Your task to perform on an android device: Open Yahoo.com Image 0: 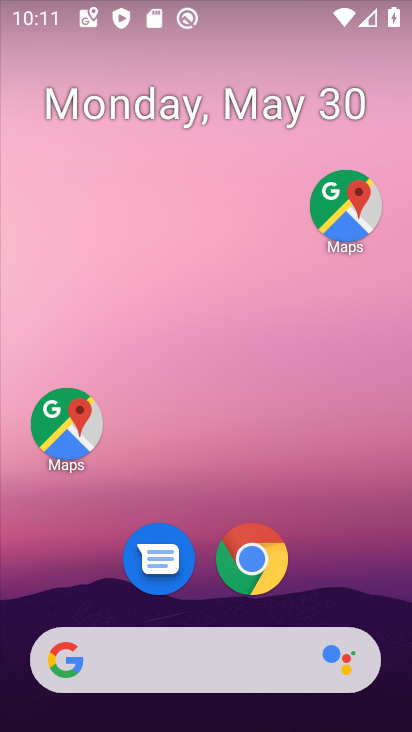
Step 0: click (254, 554)
Your task to perform on an android device: Open Yahoo.com Image 1: 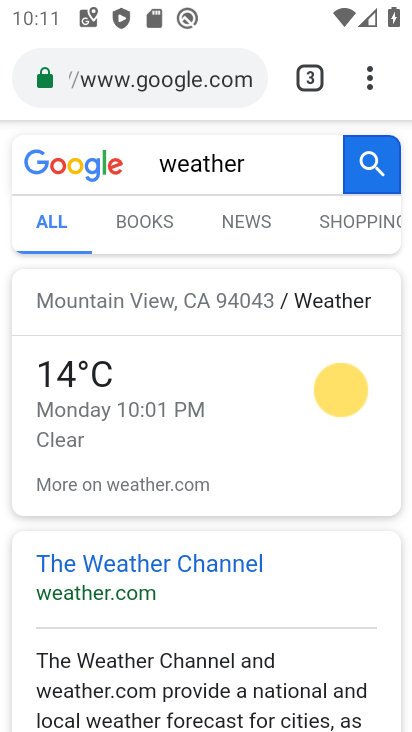
Step 1: click (216, 83)
Your task to perform on an android device: Open Yahoo.com Image 2: 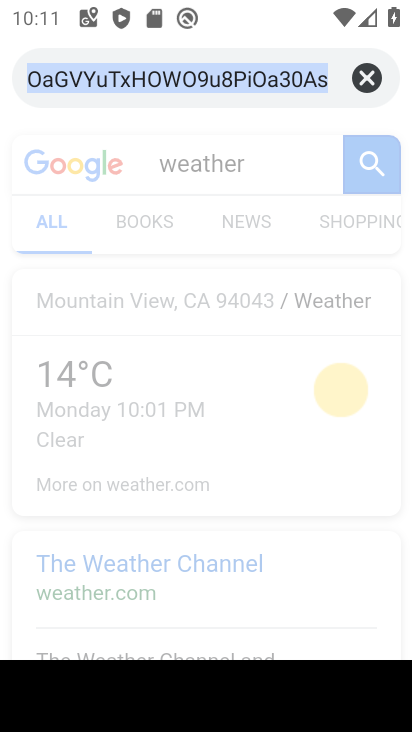
Step 2: type "yahoo.com"
Your task to perform on an android device: Open Yahoo.com Image 3: 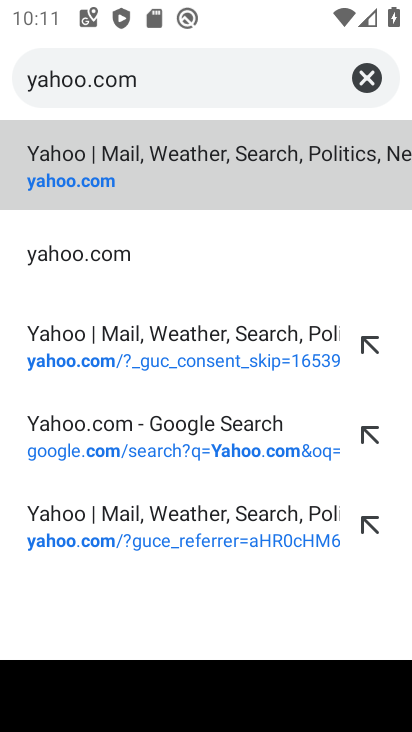
Step 3: click (72, 179)
Your task to perform on an android device: Open Yahoo.com Image 4: 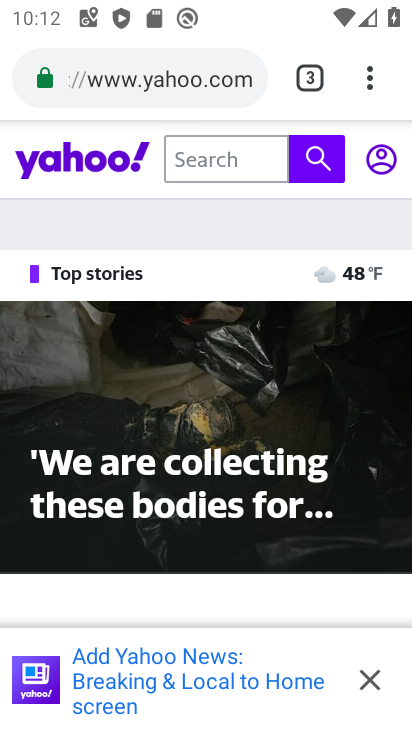
Step 4: task complete